Your task to perform on an android device: turn on the 12-hour format for clock Image 0: 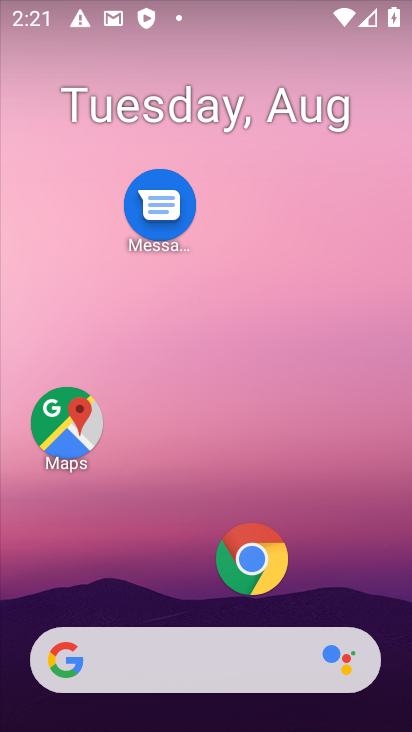
Step 0: press home button
Your task to perform on an android device: turn on the 12-hour format for clock Image 1: 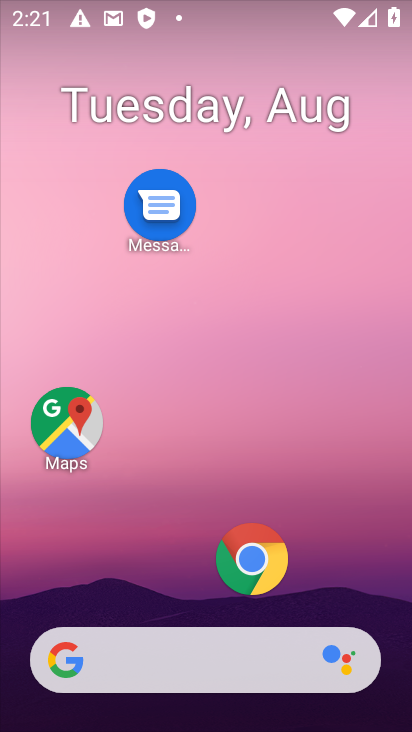
Step 1: drag from (158, 573) to (167, 70)
Your task to perform on an android device: turn on the 12-hour format for clock Image 2: 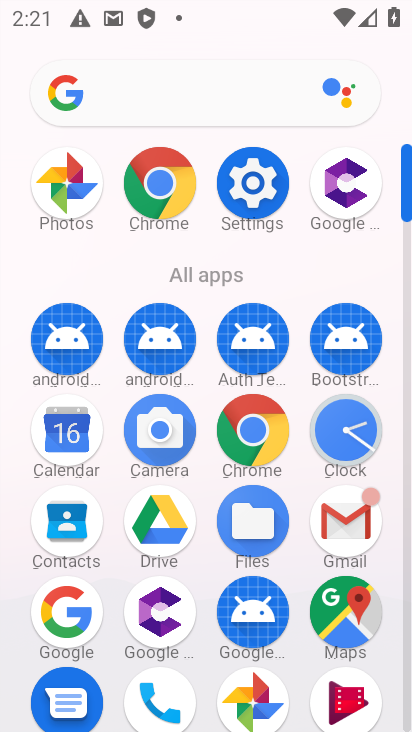
Step 2: click (345, 423)
Your task to perform on an android device: turn on the 12-hour format for clock Image 3: 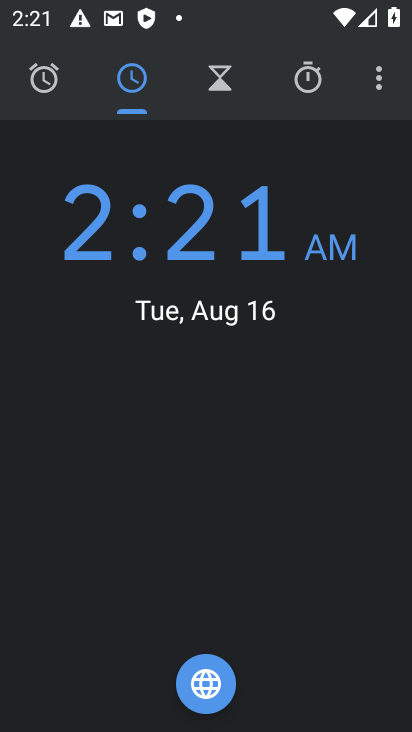
Step 3: click (383, 79)
Your task to perform on an android device: turn on the 12-hour format for clock Image 4: 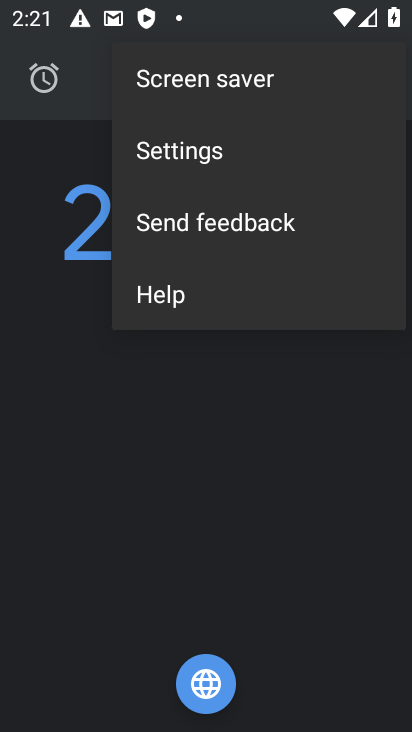
Step 4: click (184, 151)
Your task to perform on an android device: turn on the 12-hour format for clock Image 5: 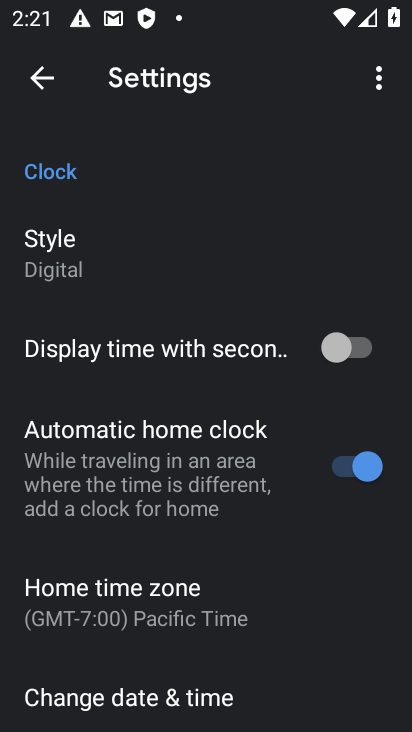
Step 5: drag from (233, 529) to (226, 263)
Your task to perform on an android device: turn on the 12-hour format for clock Image 6: 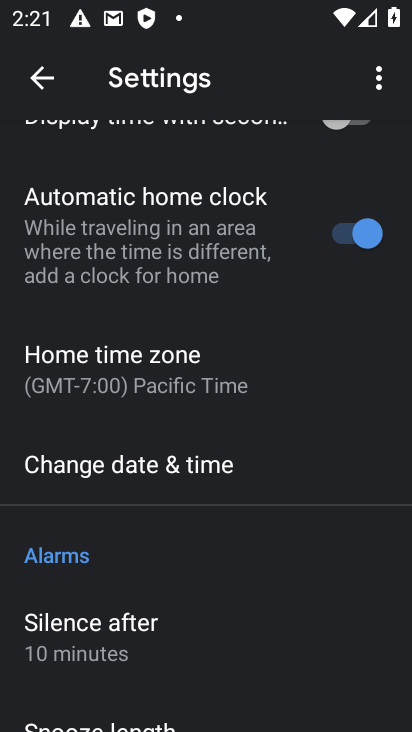
Step 6: click (153, 459)
Your task to perform on an android device: turn on the 12-hour format for clock Image 7: 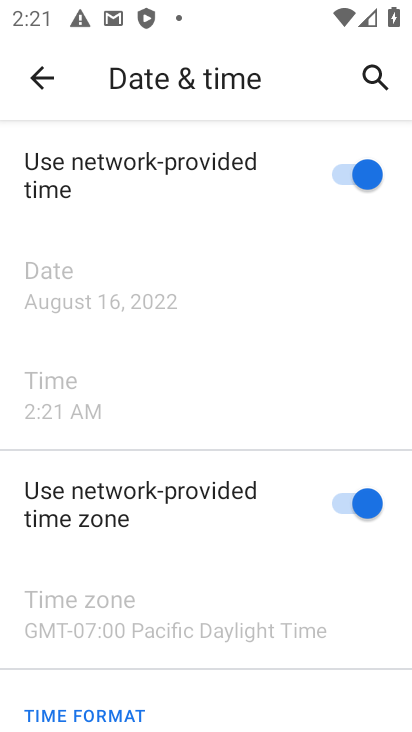
Step 7: task complete